Your task to perform on an android device: Turn off the flashlight Image 0: 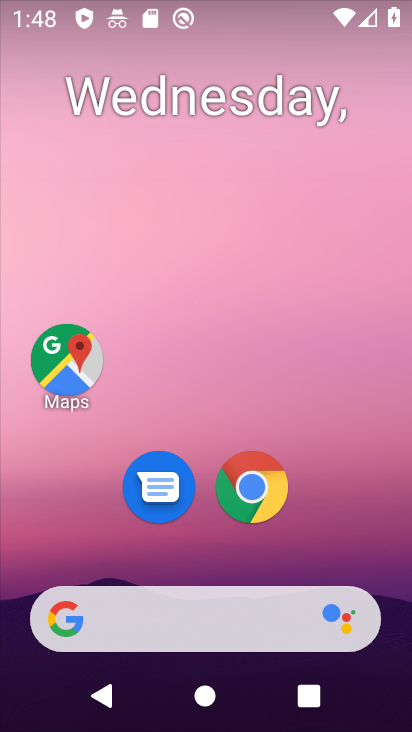
Step 0: drag from (139, 611) to (286, 9)
Your task to perform on an android device: Turn off the flashlight Image 1: 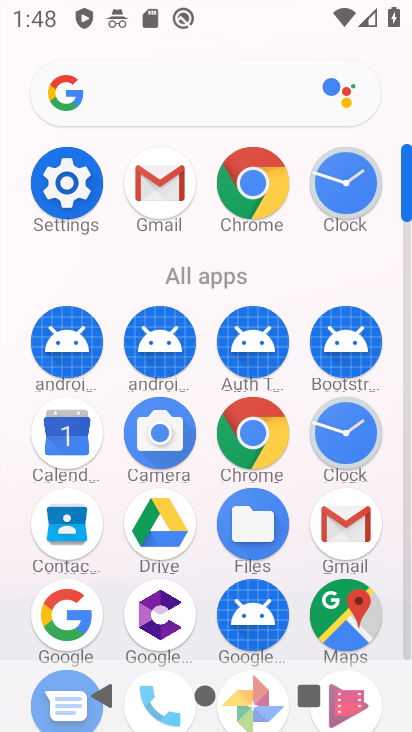
Step 1: task complete